Your task to perform on an android device: Empty the shopping cart on costco. Image 0: 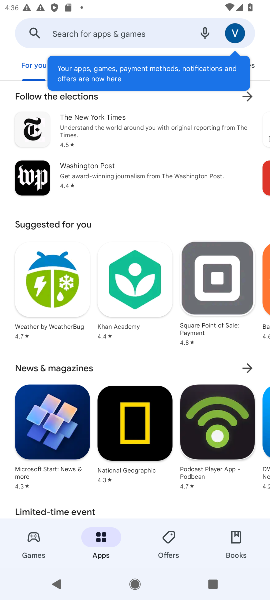
Step 0: press home button
Your task to perform on an android device: Empty the shopping cart on costco. Image 1: 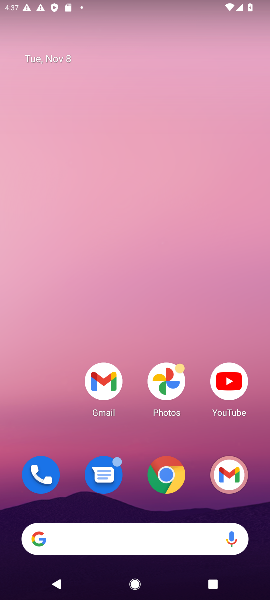
Step 1: drag from (138, 519) to (135, 113)
Your task to perform on an android device: Empty the shopping cart on costco. Image 2: 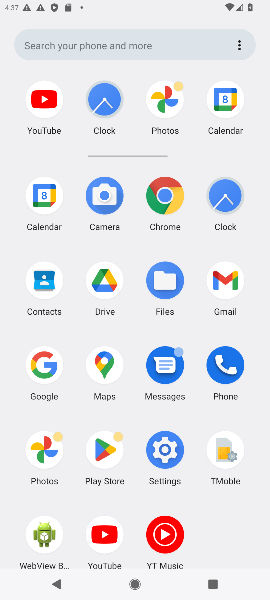
Step 2: click (51, 369)
Your task to perform on an android device: Empty the shopping cart on costco. Image 3: 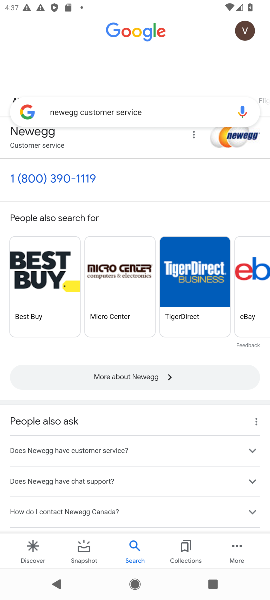
Step 3: click (87, 111)
Your task to perform on an android device: Empty the shopping cart on costco. Image 4: 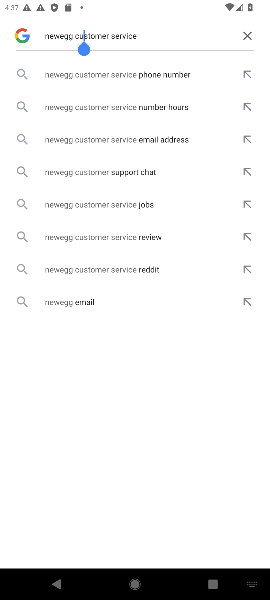
Step 4: click (254, 34)
Your task to perform on an android device: Empty the shopping cart on costco. Image 5: 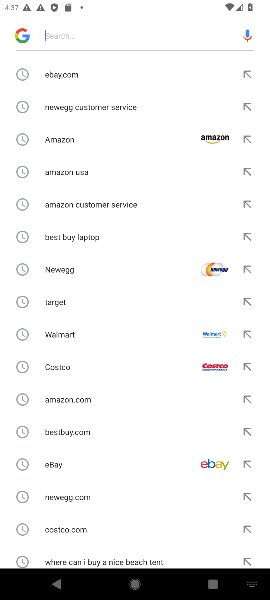
Step 5: click (93, 27)
Your task to perform on an android device: Empty the shopping cart on costco. Image 6: 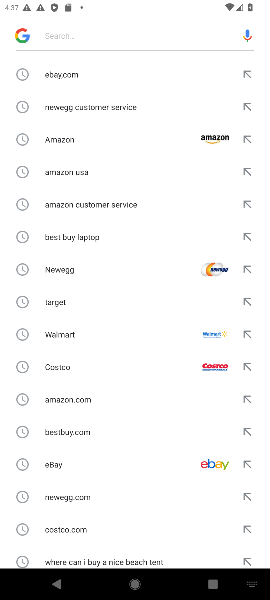
Step 6: type "costco "
Your task to perform on an android device: Empty the shopping cart on costco. Image 7: 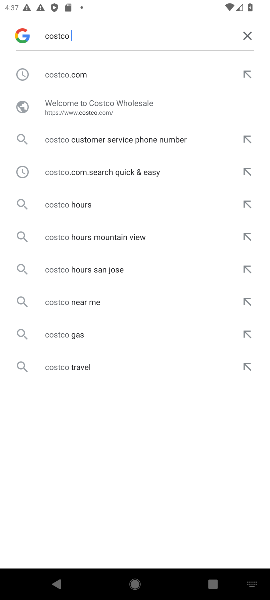
Step 7: click (63, 72)
Your task to perform on an android device: Empty the shopping cart on costco. Image 8: 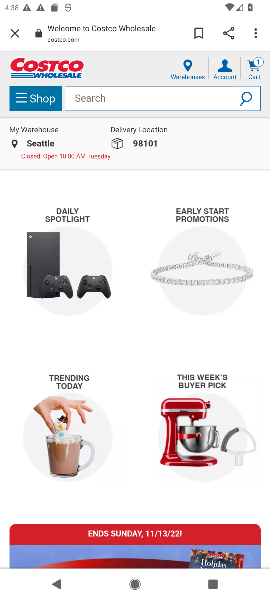
Step 8: click (251, 58)
Your task to perform on an android device: Empty the shopping cart on costco. Image 9: 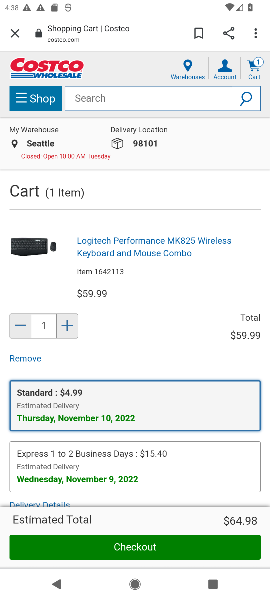
Step 9: click (19, 354)
Your task to perform on an android device: Empty the shopping cart on costco. Image 10: 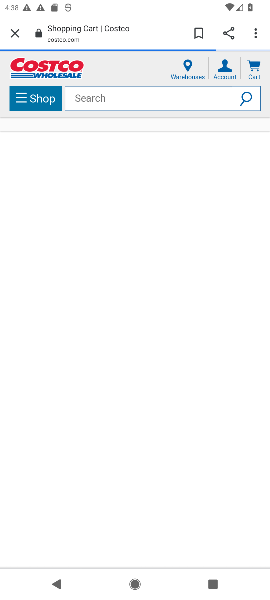
Step 10: click (19, 360)
Your task to perform on an android device: Empty the shopping cart on costco. Image 11: 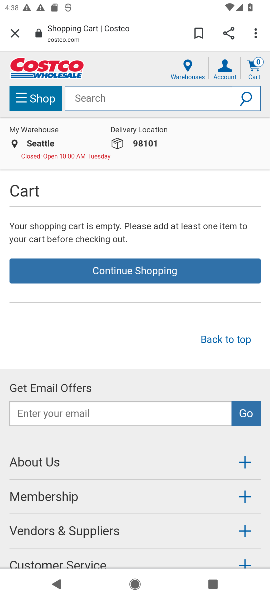
Step 11: task complete